Your task to perform on an android device: set default search engine in the chrome app Image 0: 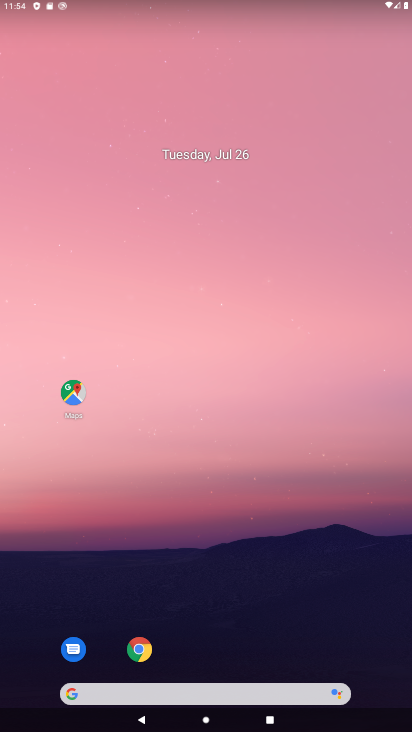
Step 0: drag from (187, 30) to (225, 8)
Your task to perform on an android device: set default search engine in the chrome app Image 1: 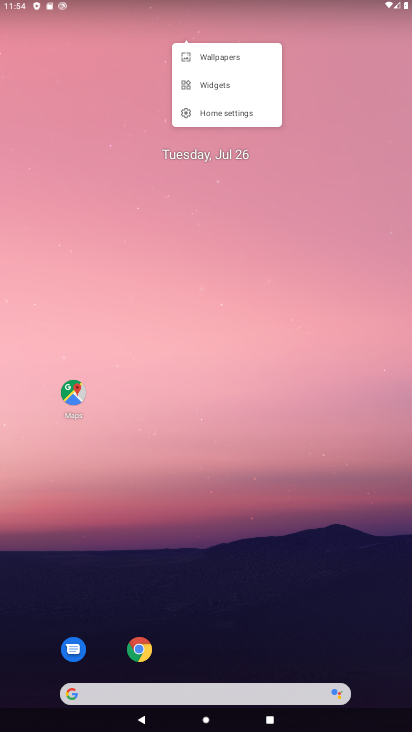
Step 1: click (228, 562)
Your task to perform on an android device: set default search engine in the chrome app Image 2: 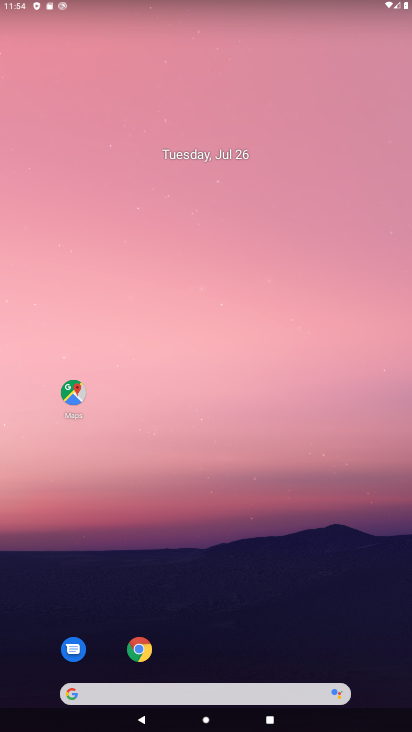
Step 2: drag from (228, 562) to (192, 154)
Your task to perform on an android device: set default search engine in the chrome app Image 3: 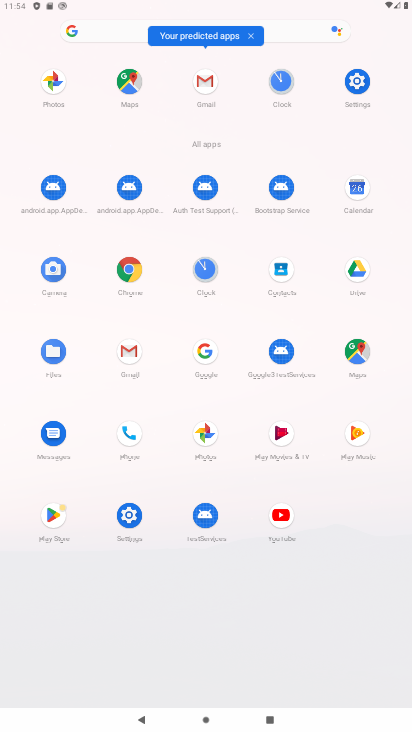
Step 3: click (123, 264)
Your task to perform on an android device: set default search engine in the chrome app Image 4: 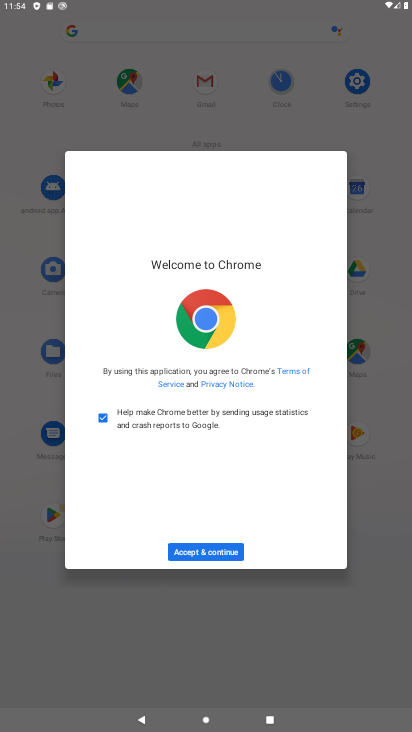
Step 4: click (201, 547)
Your task to perform on an android device: set default search engine in the chrome app Image 5: 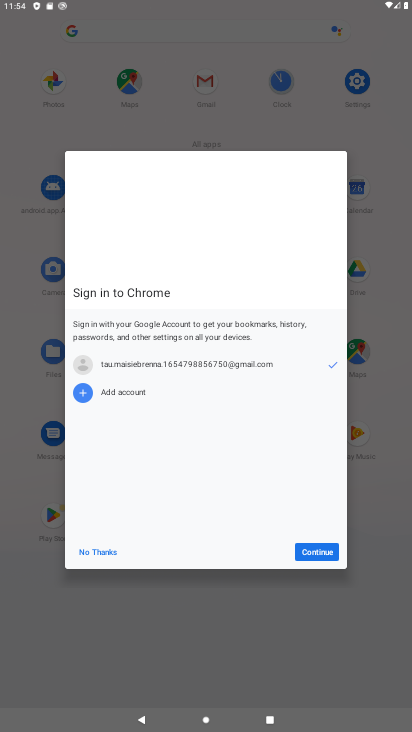
Step 5: click (305, 558)
Your task to perform on an android device: set default search engine in the chrome app Image 6: 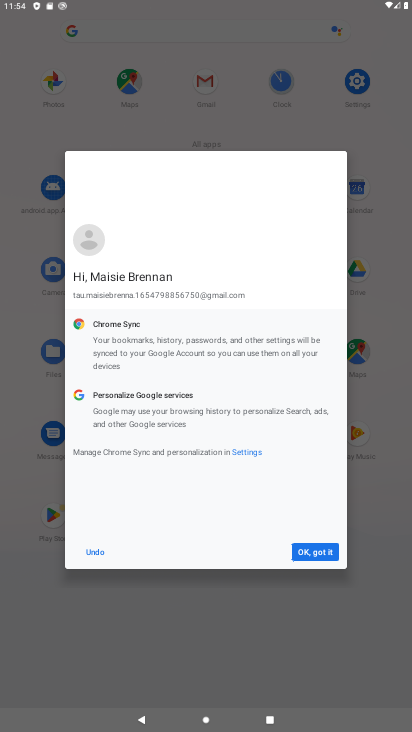
Step 6: click (305, 558)
Your task to perform on an android device: set default search engine in the chrome app Image 7: 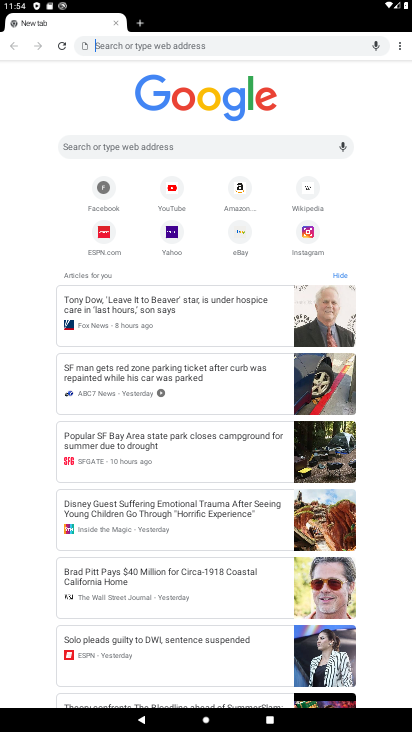
Step 7: click (397, 48)
Your task to perform on an android device: set default search engine in the chrome app Image 8: 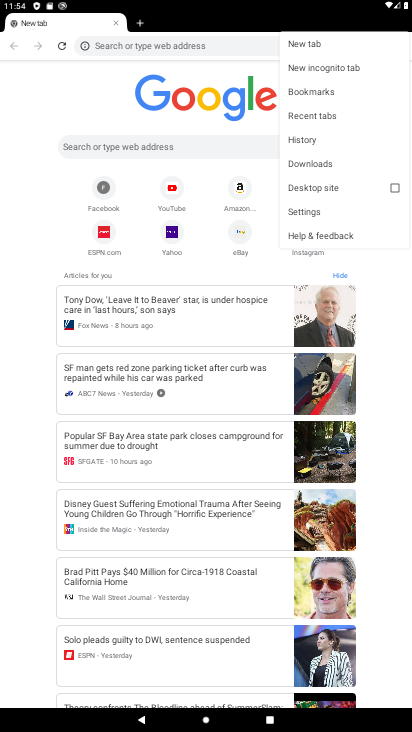
Step 8: click (311, 212)
Your task to perform on an android device: set default search engine in the chrome app Image 9: 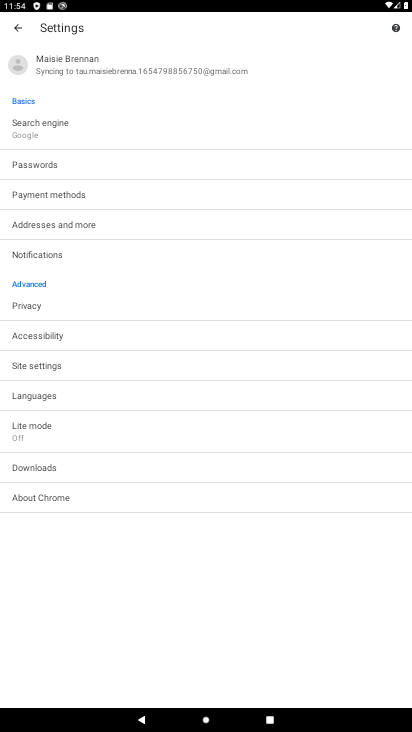
Step 9: click (33, 123)
Your task to perform on an android device: set default search engine in the chrome app Image 10: 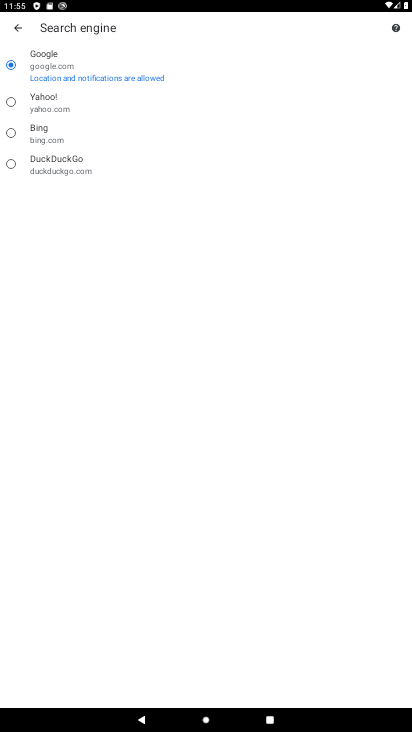
Step 10: task complete